Your task to perform on an android device: Go to privacy settings Image 0: 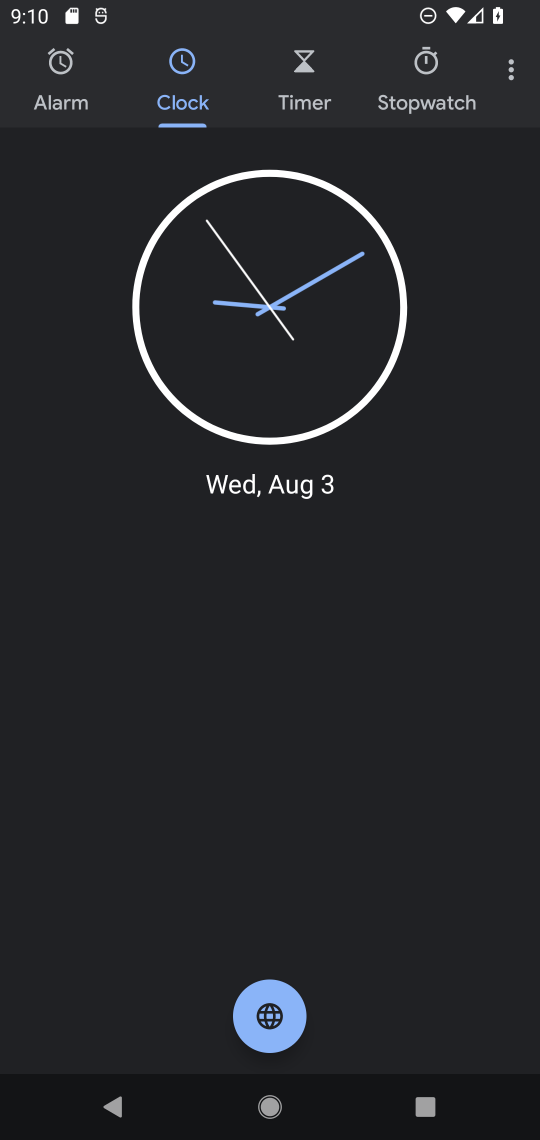
Step 0: press home button
Your task to perform on an android device: Go to privacy settings Image 1: 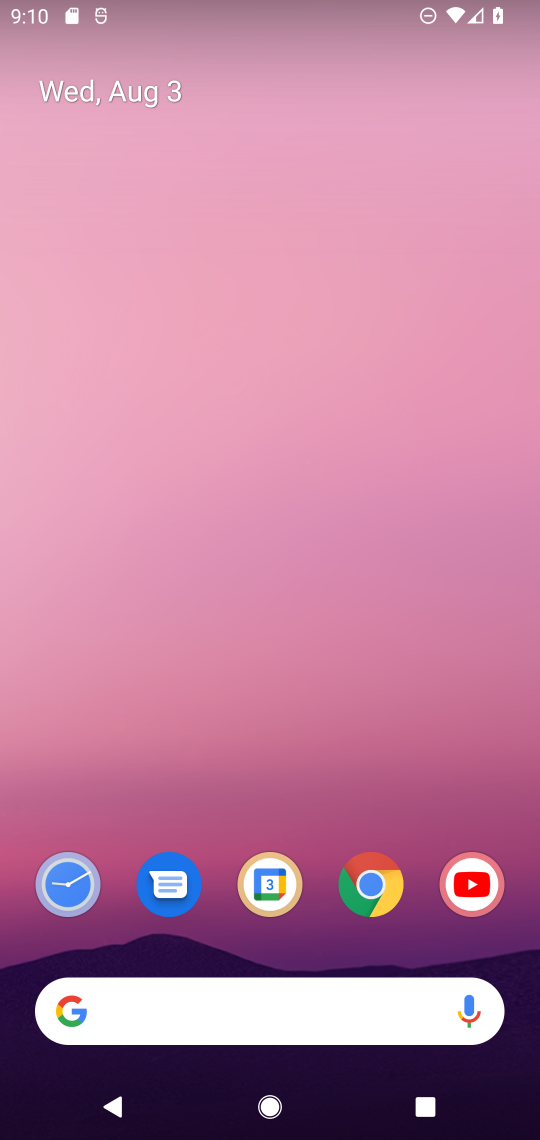
Step 1: drag from (35, 1095) to (397, 90)
Your task to perform on an android device: Go to privacy settings Image 2: 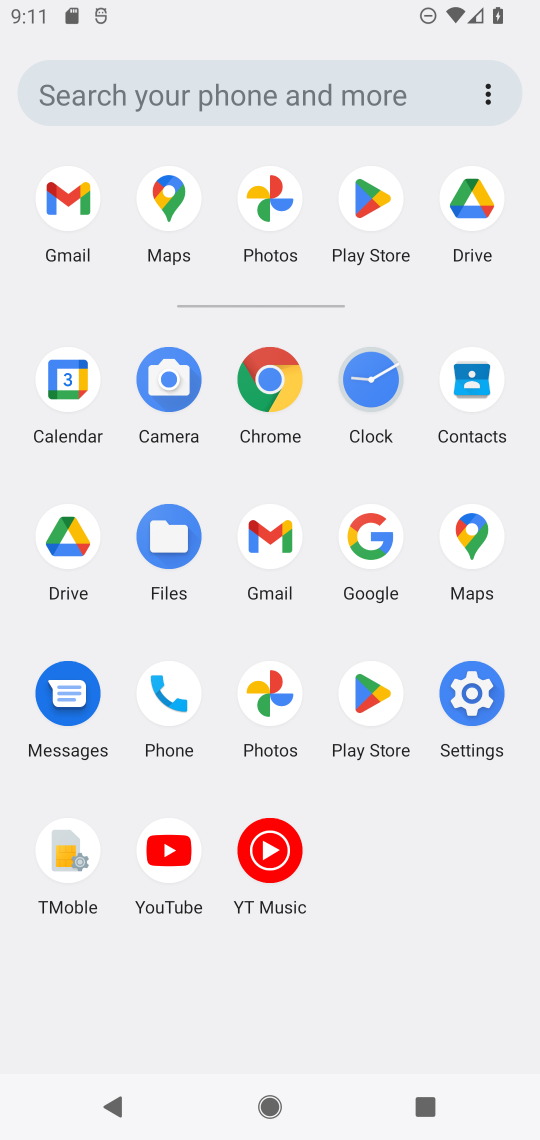
Step 2: click (466, 701)
Your task to perform on an android device: Go to privacy settings Image 3: 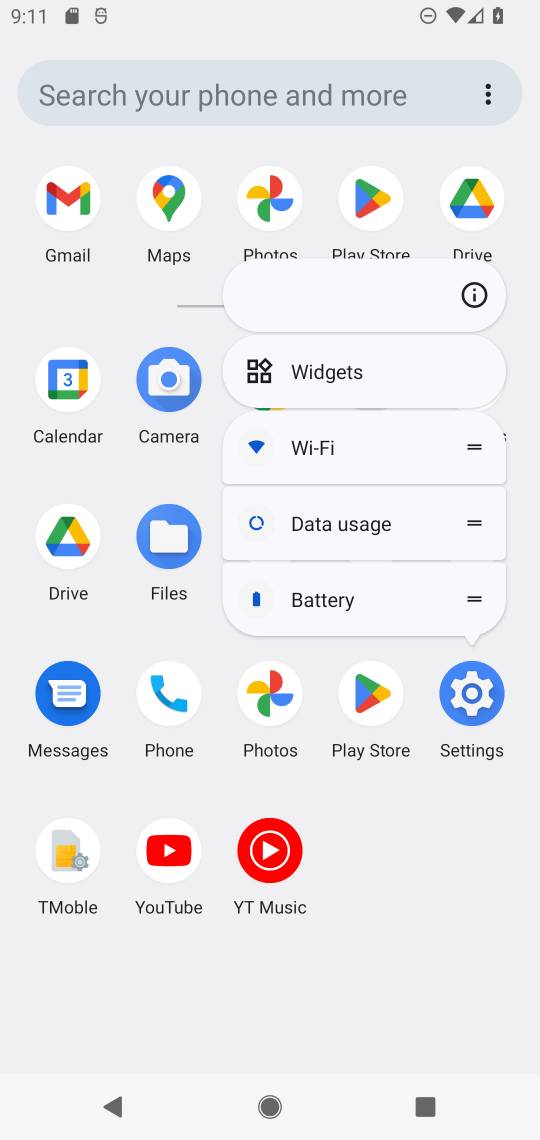
Step 3: click (468, 719)
Your task to perform on an android device: Go to privacy settings Image 4: 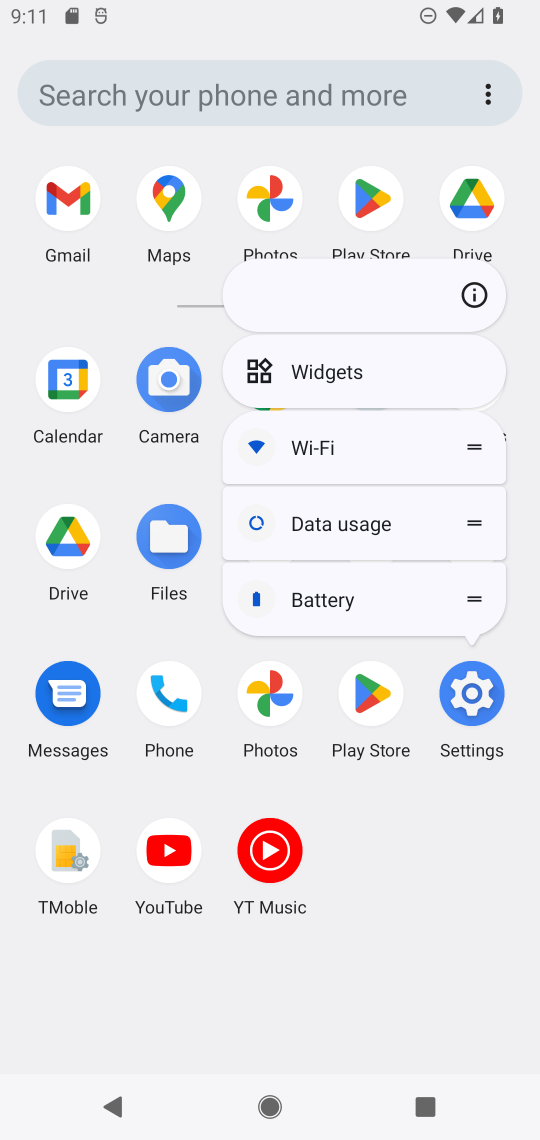
Step 4: click (447, 722)
Your task to perform on an android device: Go to privacy settings Image 5: 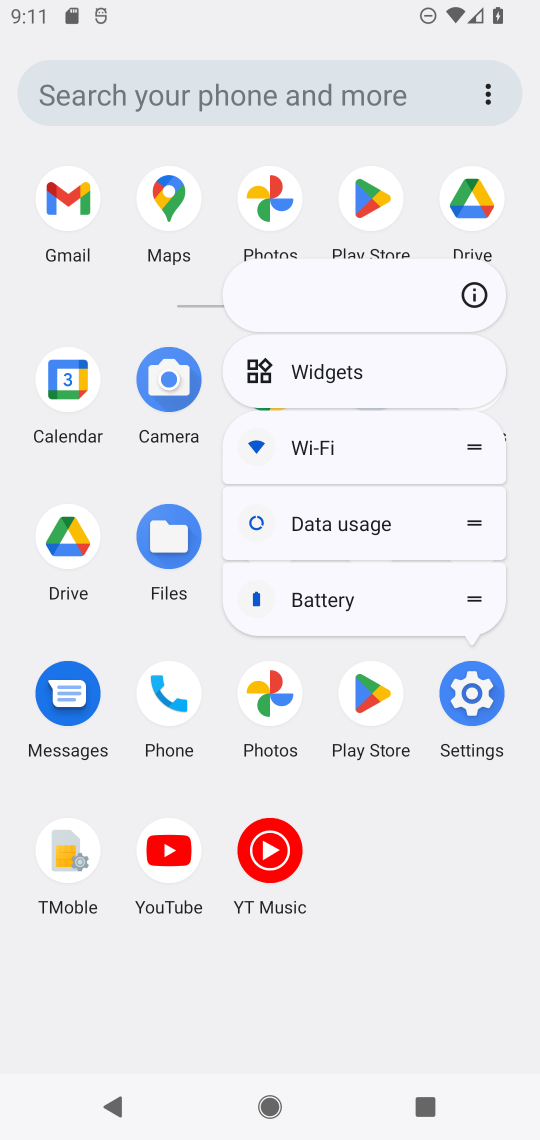
Step 5: click (477, 699)
Your task to perform on an android device: Go to privacy settings Image 6: 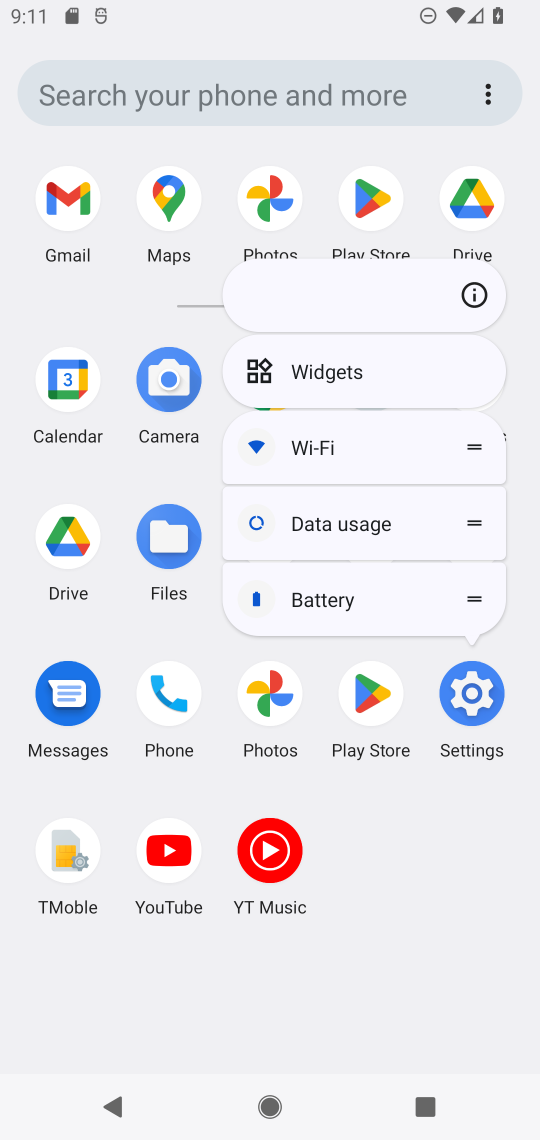
Step 6: task complete